Your task to perform on an android device: Open settings Image 0: 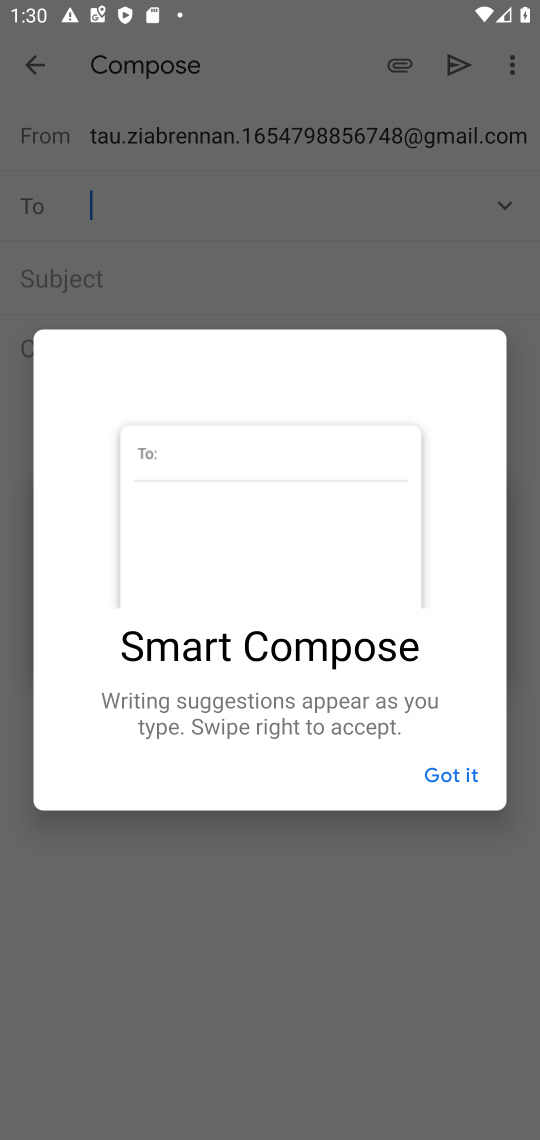
Step 0: press home button
Your task to perform on an android device: Open settings Image 1: 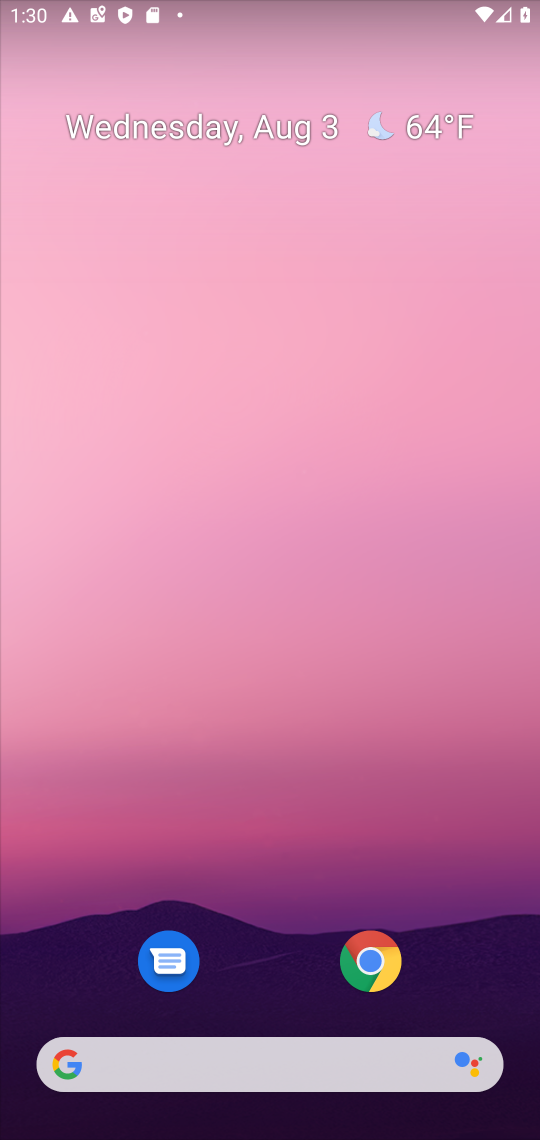
Step 1: drag from (280, 993) to (273, 93)
Your task to perform on an android device: Open settings Image 2: 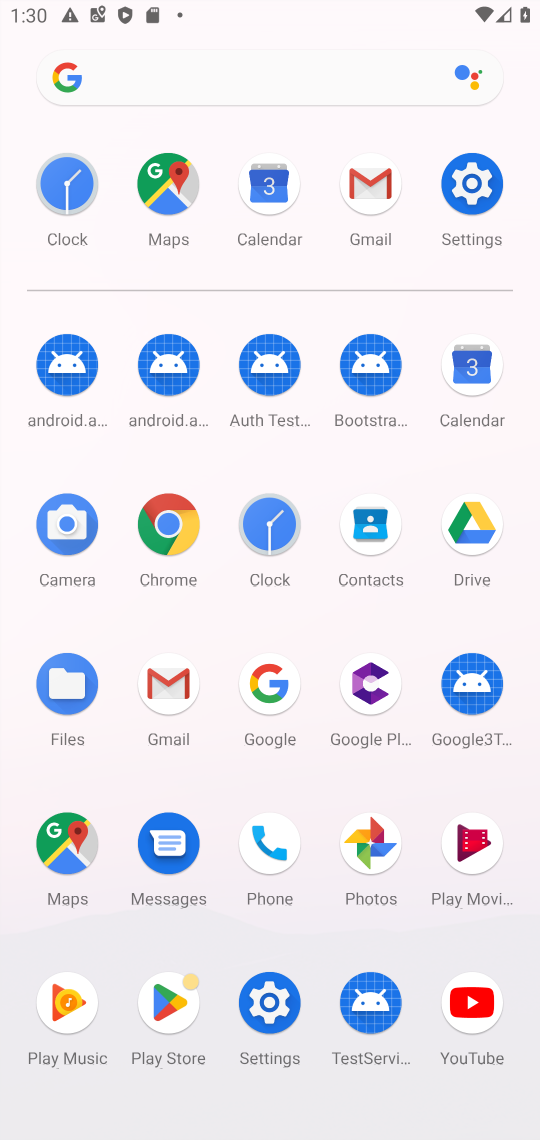
Step 2: click (470, 181)
Your task to perform on an android device: Open settings Image 3: 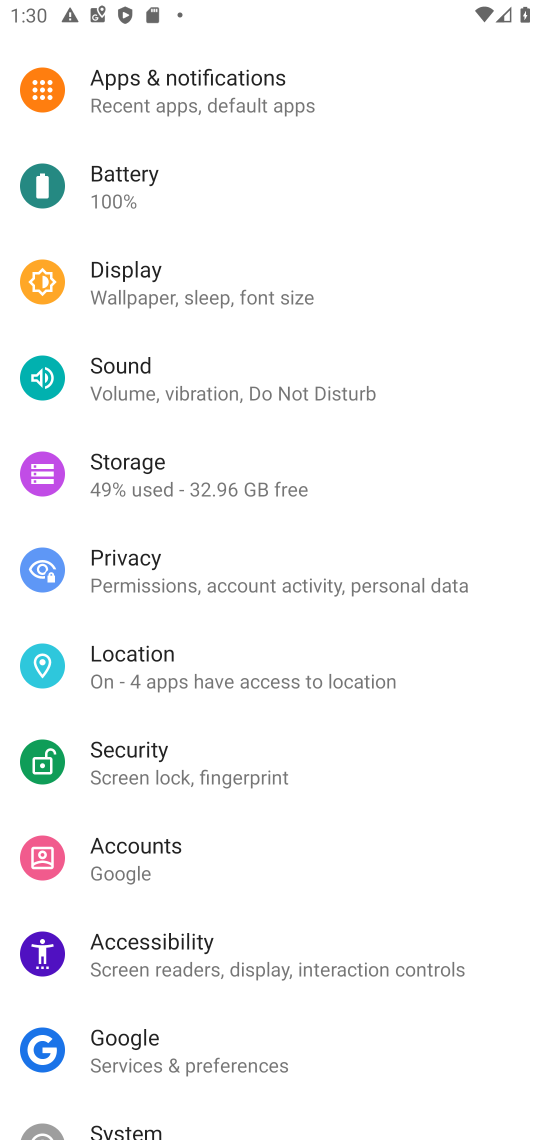
Step 3: task complete